Your task to perform on an android device: Go to eBay Image 0: 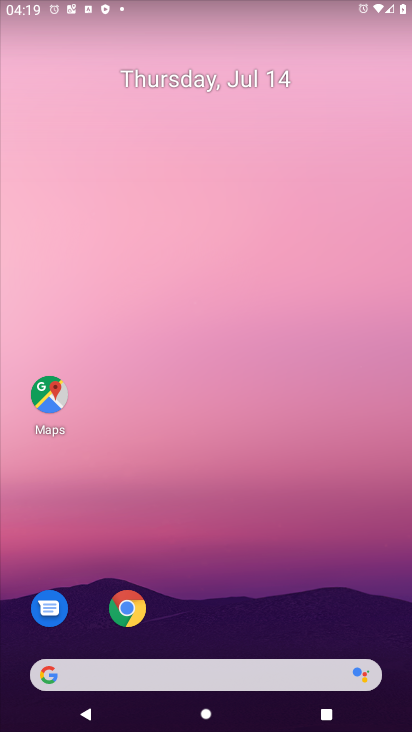
Step 0: click (126, 609)
Your task to perform on an android device: Go to eBay Image 1: 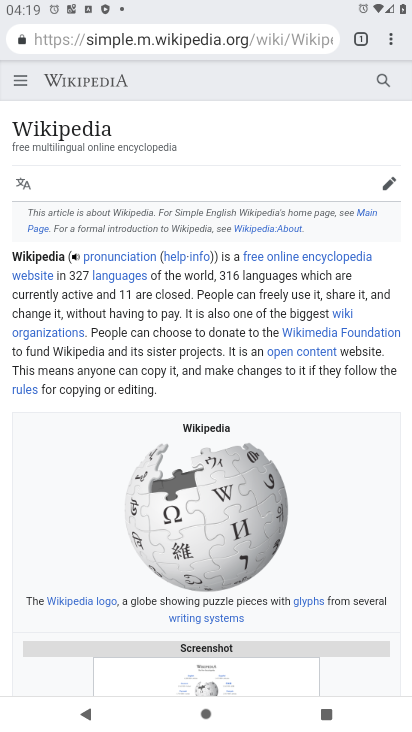
Step 1: click (289, 35)
Your task to perform on an android device: Go to eBay Image 2: 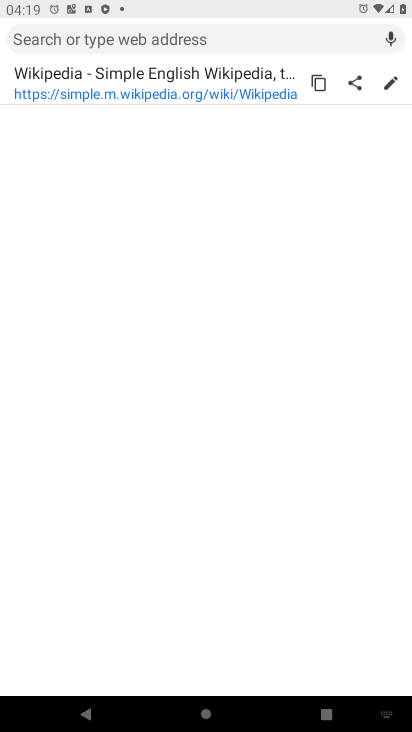
Step 2: type "eBay"
Your task to perform on an android device: Go to eBay Image 3: 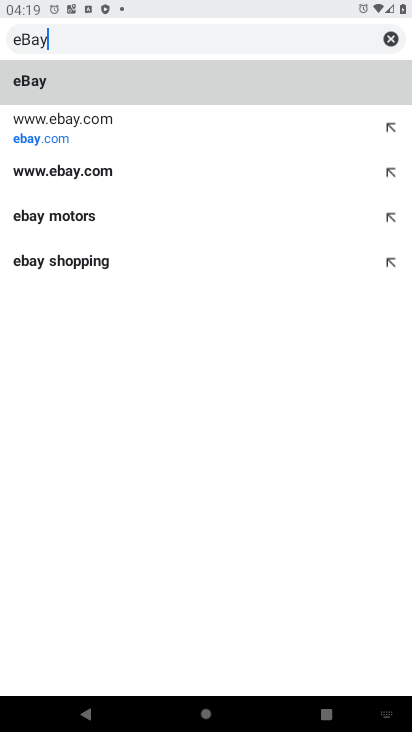
Step 3: click (42, 84)
Your task to perform on an android device: Go to eBay Image 4: 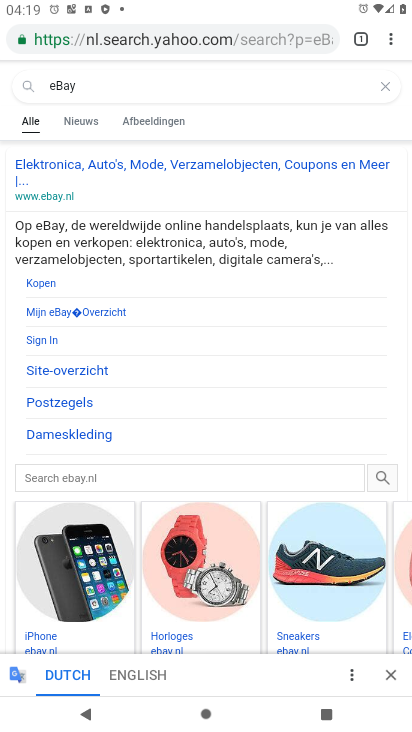
Step 4: click (40, 196)
Your task to perform on an android device: Go to eBay Image 5: 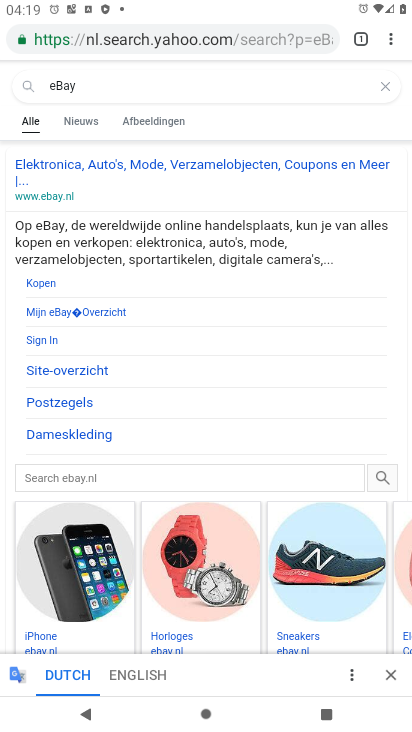
Step 5: click (45, 194)
Your task to perform on an android device: Go to eBay Image 6: 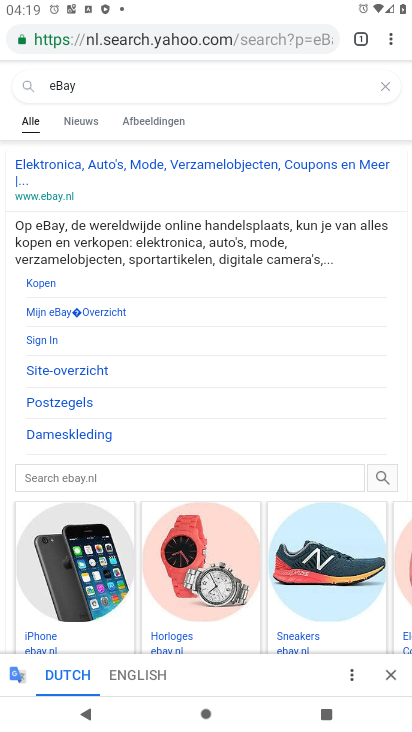
Step 6: click (48, 176)
Your task to perform on an android device: Go to eBay Image 7: 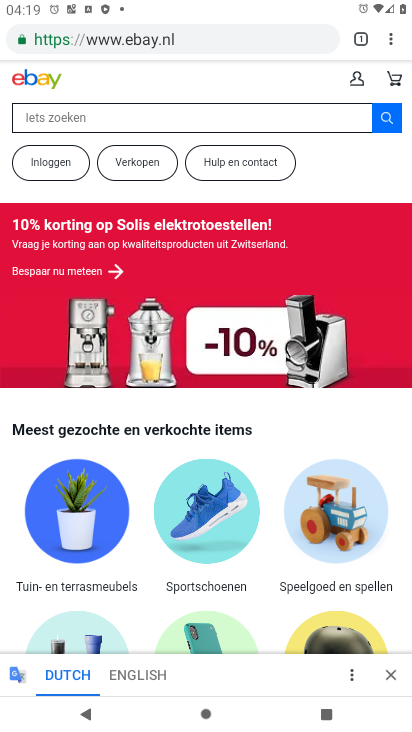
Step 7: task complete